Your task to perform on an android device: delete the emails in spam in the gmail app Image 0: 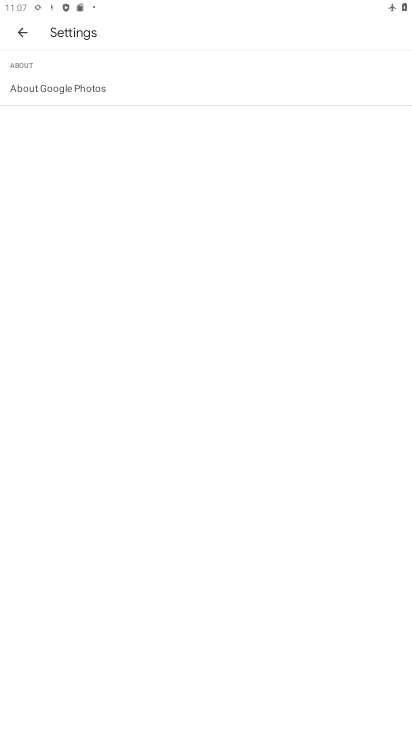
Step 0: drag from (342, 604) to (380, 137)
Your task to perform on an android device: delete the emails in spam in the gmail app Image 1: 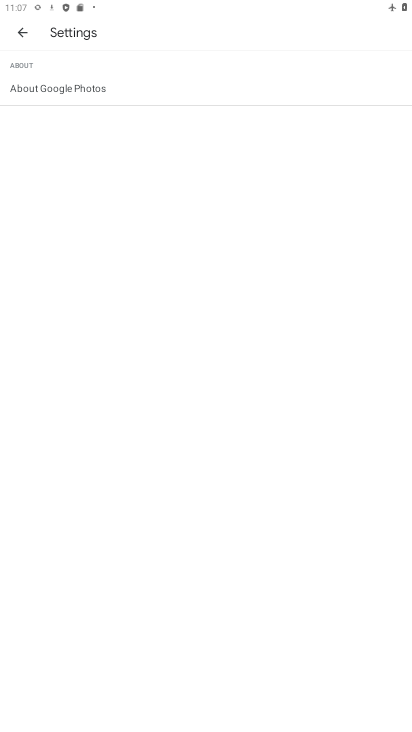
Step 1: press home button
Your task to perform on an android device: delete the emails in spam in the gmail app Image 2: 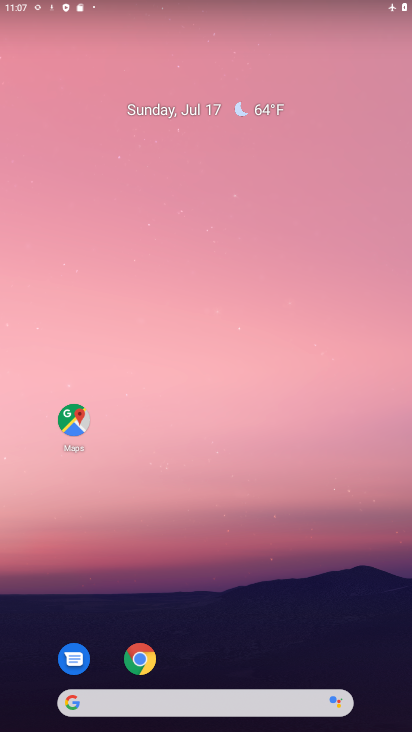
Step 2: drag from (341, 635) to (347, 205)
Your task to perform on an android device: delete the emails in spam in the gmail app Image 3: 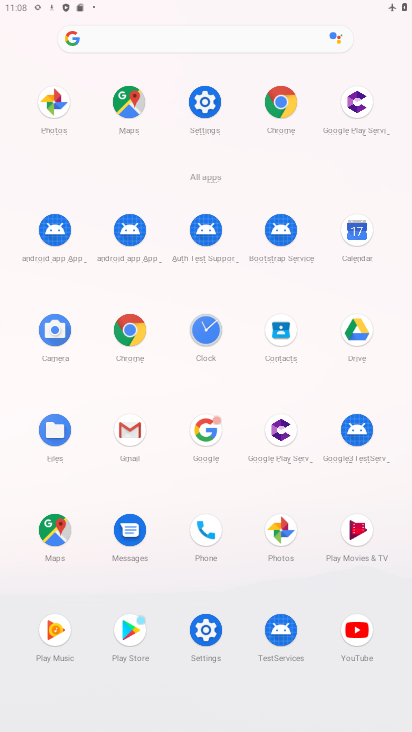
Step 3: click (132, 431)
Your task to perform on an android device: delete the emails in spam in the gmail app Image 4: 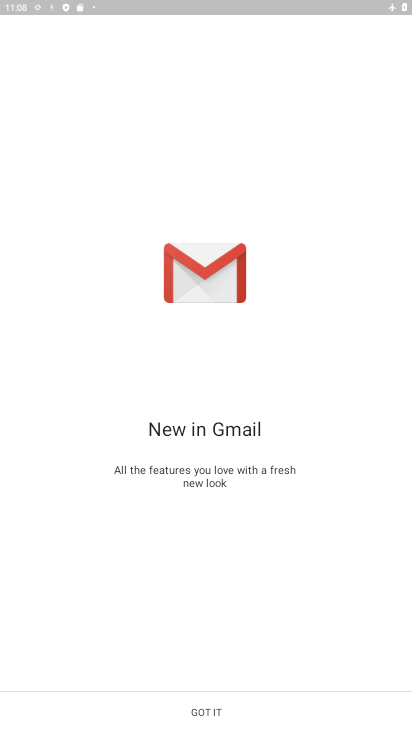
Step 4: click (239, 703)
Your task to perform on an android device: delete the emails in spam in the gmail app Image 5: 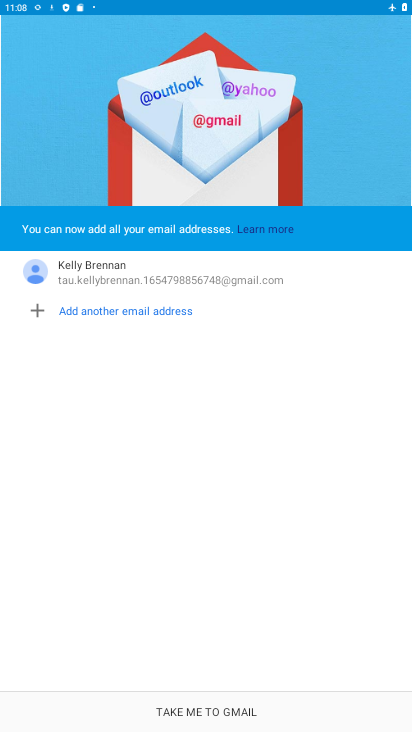
Step 5: click (219, 717)
Your task to perform on an android device: delete the emails in spam in the gmail app Image 6: 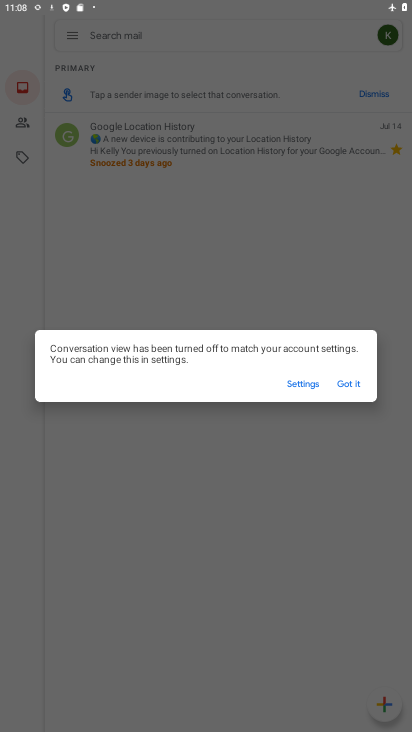
Step 6: click (348, 377)
Your task to perform on an android device: delete the emails in spam in the gmail app Image 7: 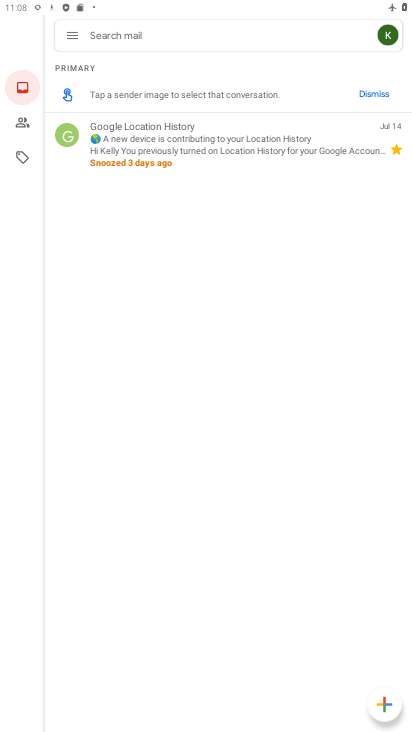
Step 7: click (287, 144)
Your task to perform on an android device: delete the emails in spam in the gmail app Image 8: 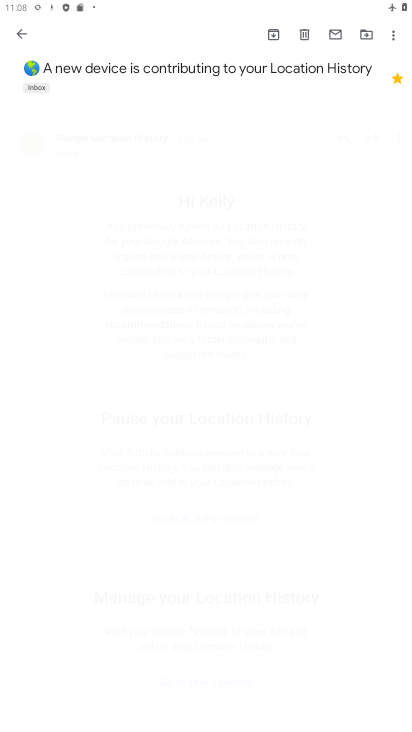
Step 8: click (302, 30)
Your task to perform on an android device: delete the emails in spam in the gmail app Image 9: 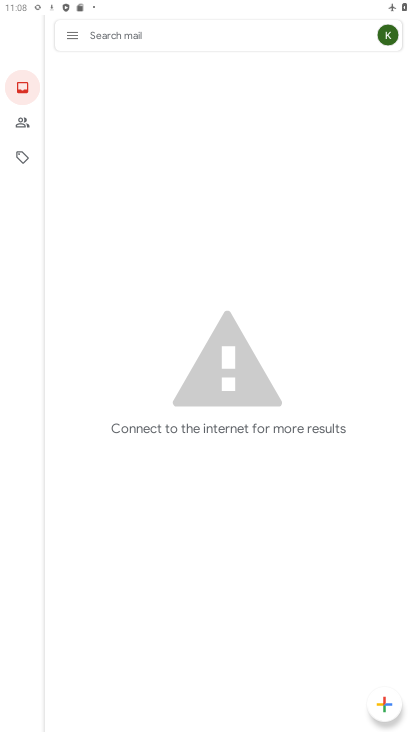
Step 9: task complete